Your task to perform on an android device: Show the shopping cart on target. Add razer nari to the cart on target, then select checkout. Image 0: 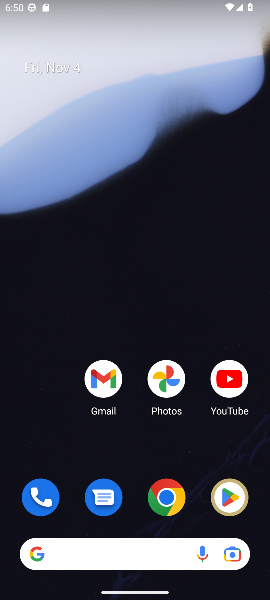
Step 0: click (171, 500)
Your task to perform on an android device: Show the shopping cart on target. Add razer nari to the cart on target, then select checkout. Image 1: 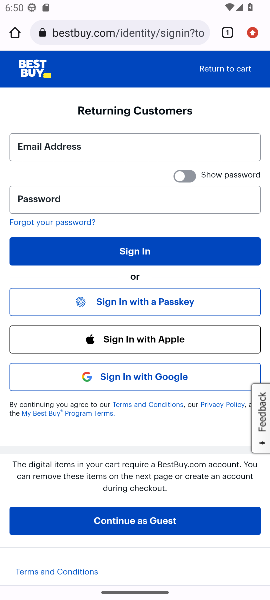
Step 1: click (106, 27)
Your task to perform on an android device: Show the shopping cart on target. Add razer nari to the cart on target, then select checkout. Image 2: 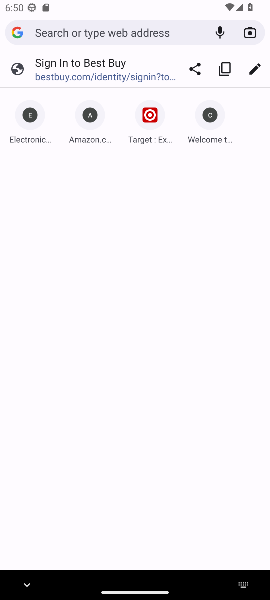
Step 2: click (140, 132)
Your task to perform on an android device: Show the shopping cart on target. Add razer nari to the cart on target, then select checkout. Image 3: 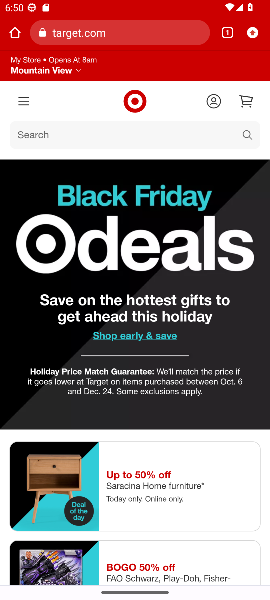
Step 3: click (245, 103)
Your task to perform on an android device: Show the shopping cart on target. Add razer nari to the cart on target, then select checkout. Image 4: 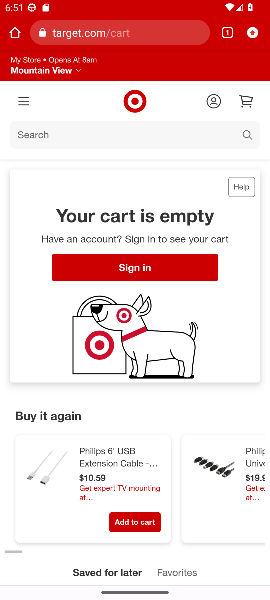
Step 4: click (242, 137)
Your task to perform on an android device: Show the shopping cart on target. Add razer nari to the cart on target, then select checkout. Image 5: 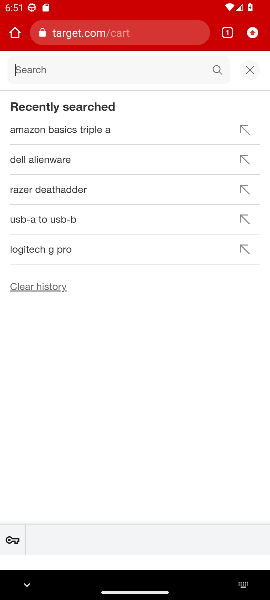
Step 5: type "razer nari "
Your task to perform on an android device: Show the shopping cart on target. Add razer nari to the cart on target, then select checkout. Image 6: 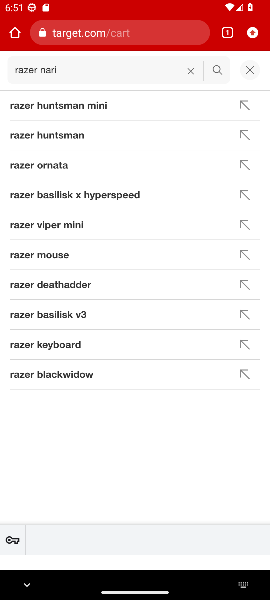
Step 6: click (218, 65)
Your task to perform on an android device: Show the shopping cart on target. Add razer nari to the cart on target, then select checkout. Image 7: 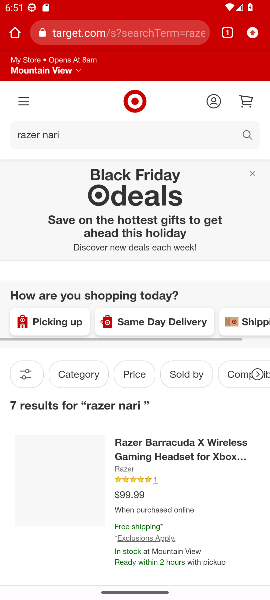
Step 7: task complete